Your task to perform on an android device: check google app version Image 0: 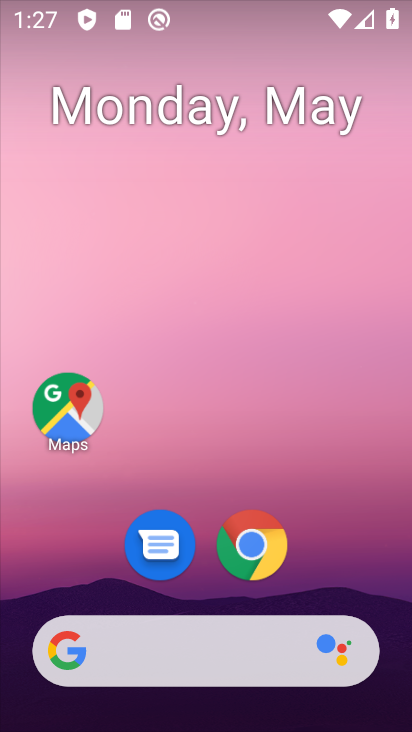
Step 0: drag from (207, 714) to (147, 202)
Your task to perform on an android device: check google app version Image 1: 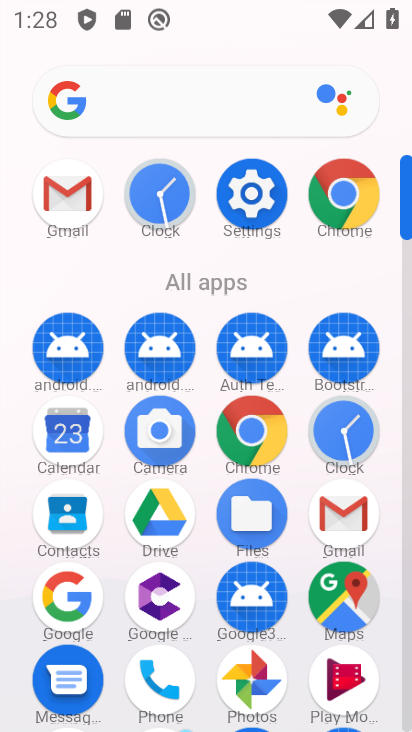
Step 1: click (83, 608)
Your task to perform on an android device: check google app version Image 2: 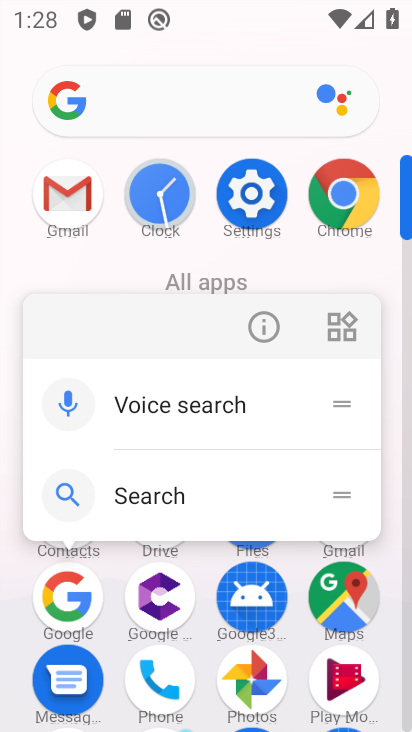
Step 2: drag from (83, 608) to (270, 325)
Your task to perform on an android device: check google app version Image 3: 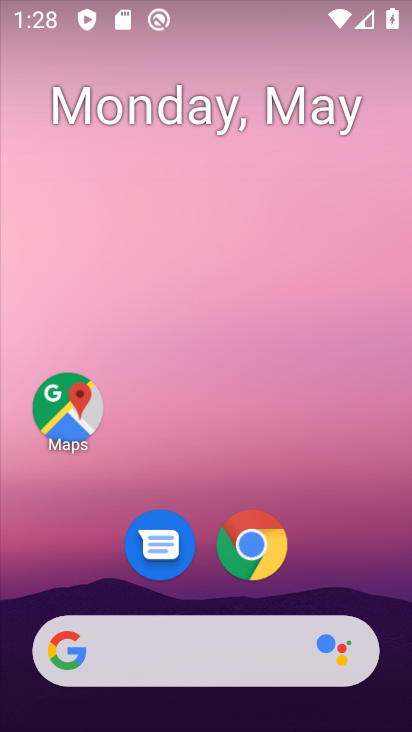
Step 3: drag from (212, 709) to (194, 182)
Your task to perform on an android device: check google app version Image 4: 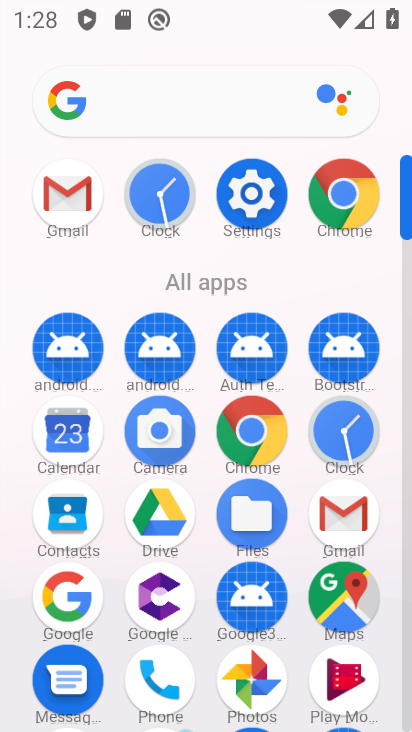
Step 4: click (67, 587)
Your task to perform on an android device: check google app version Image 5: 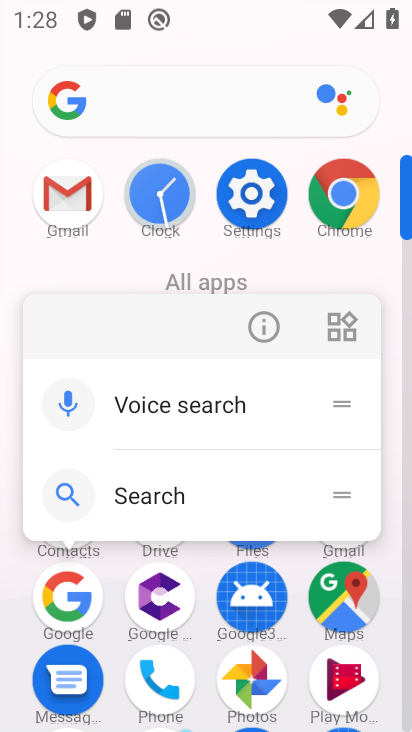
Step 5: click (261, 325)
Your task to perform on an android device: check google app version Image 6: 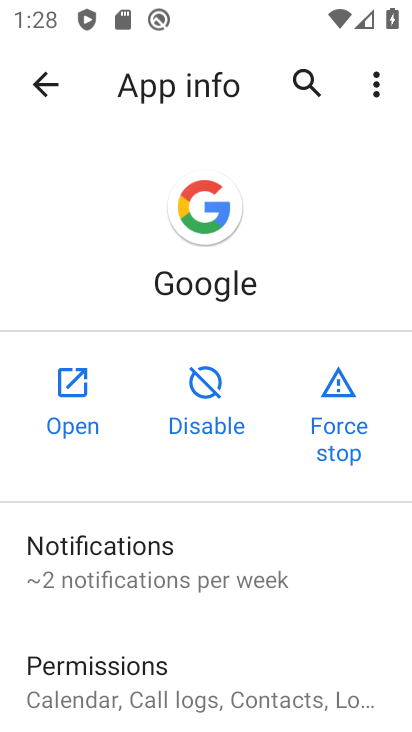
Step 6: drag from (272, 681) to (169, 98)
Your task to perform on an android device: check google app version Image 7: 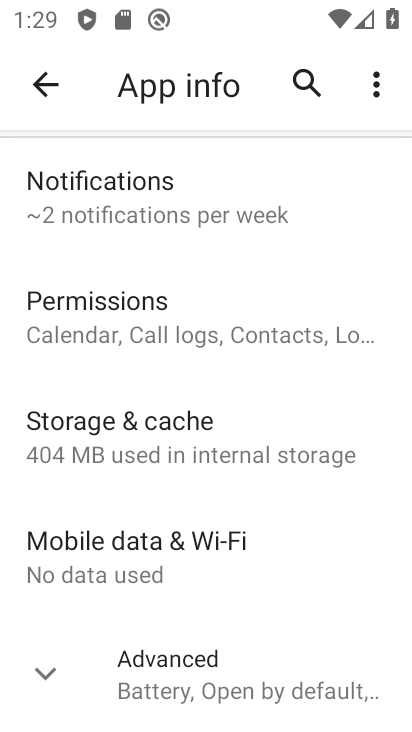
Step 7: click (205, 692)
Your task to perform on an android device: check google app version Image 8: 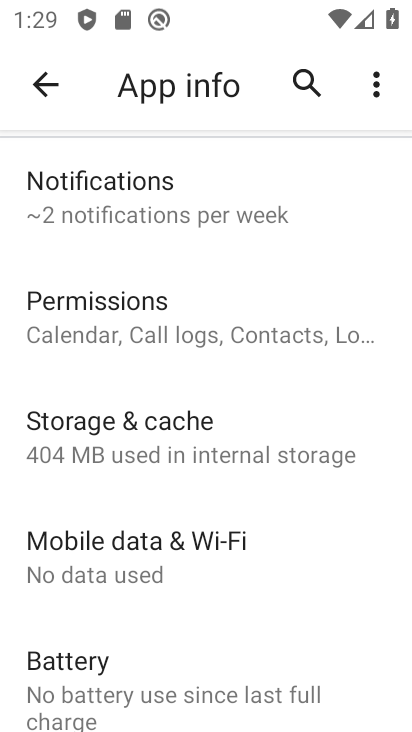
Step 8: task complete